Your task to perform on an android device: Go to CNN.com Image 0: 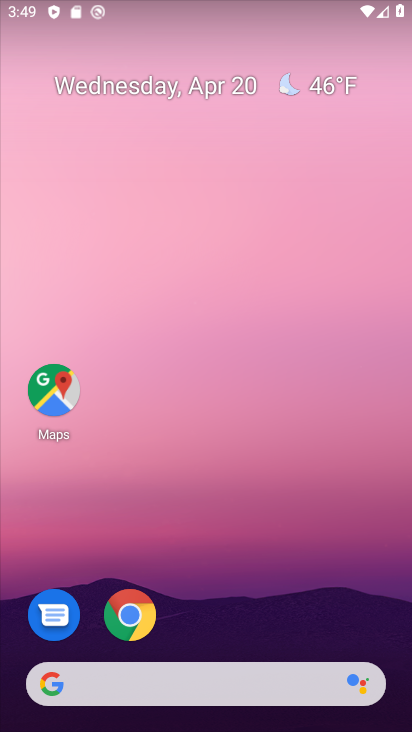
Step 0: click (132, 609)
Your task to perform on an android device: Go to CNN.com Image 1: 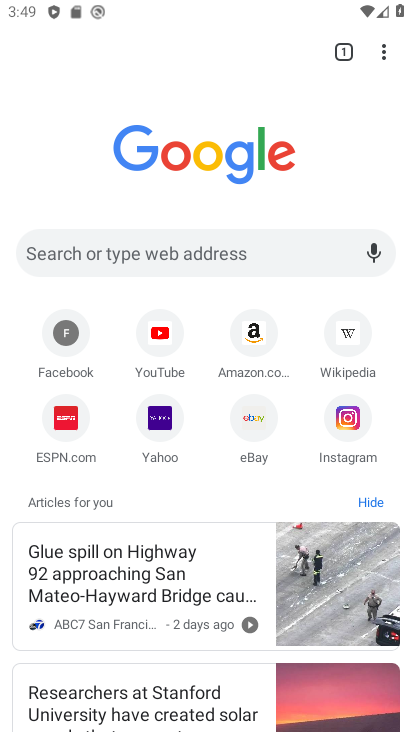
Step 1: click (131, 254)
Your task to perform on an android device: Go to CNN.com Image 2: 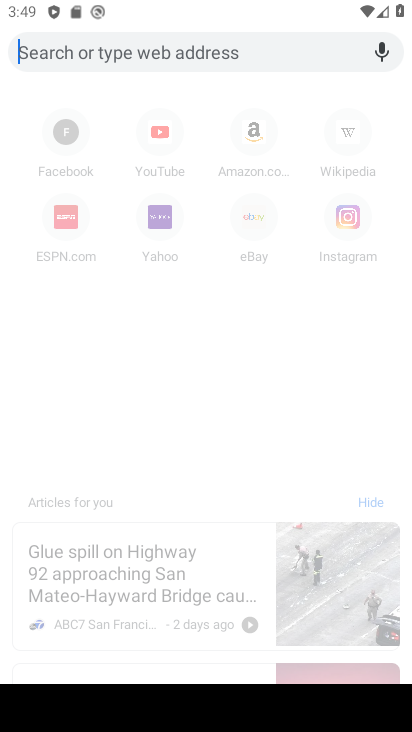
Step 2: type "cnn.com"
Your task to perform on an android device: Go to CNN.com Image 3: 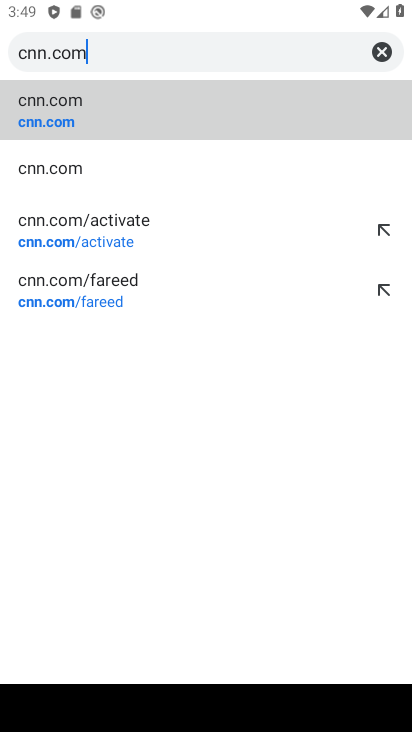
Step 3: click (101, 108)
Your task to perform on an android device: Go to CNN.com Image 4: 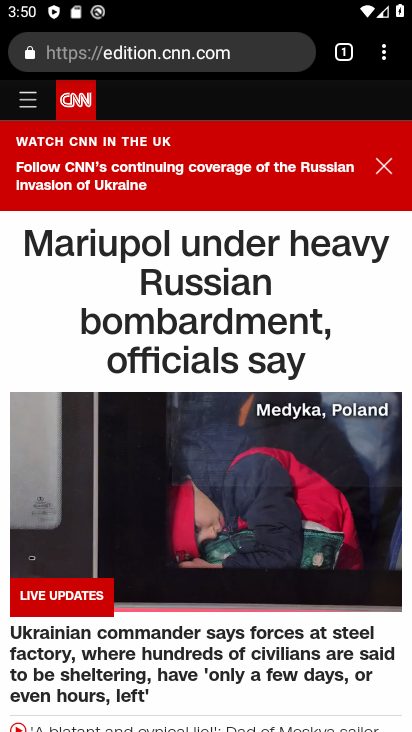
Step 4: task complete